Your task to perform on an android device: snooze an email in the gmail app Image 0: 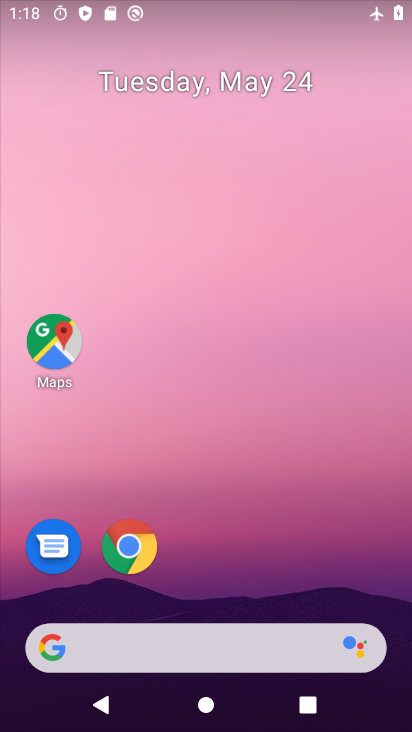
Step 0: drag from (228, 352) to (285, 0)
Your task to perform on an android device: snooze an email in the gmail app Image 1: 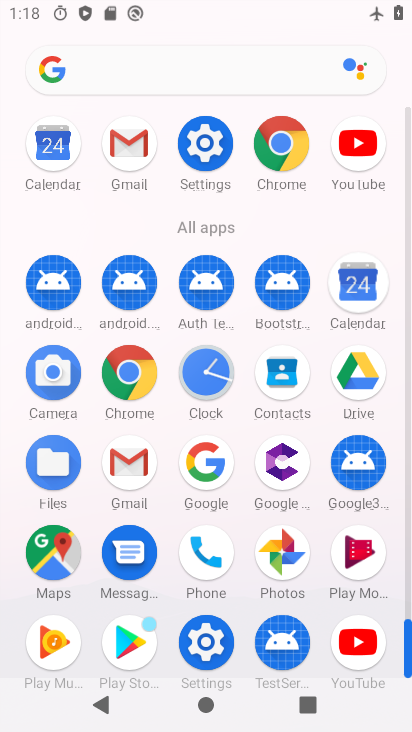
Step 1: click (118, 455)
Your task to perform on an android device: snooze an email in the gmail app Image 2: 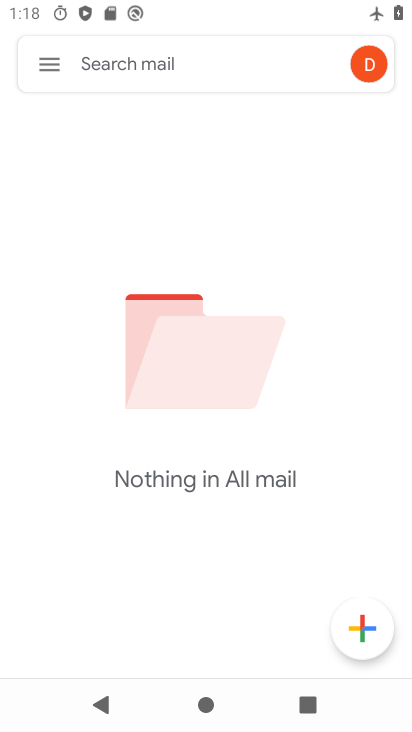
Step 2: drag from (211, 585) to (235, 196)
Your task to perform on an android device: snooze an email in the gmail app Image 3: 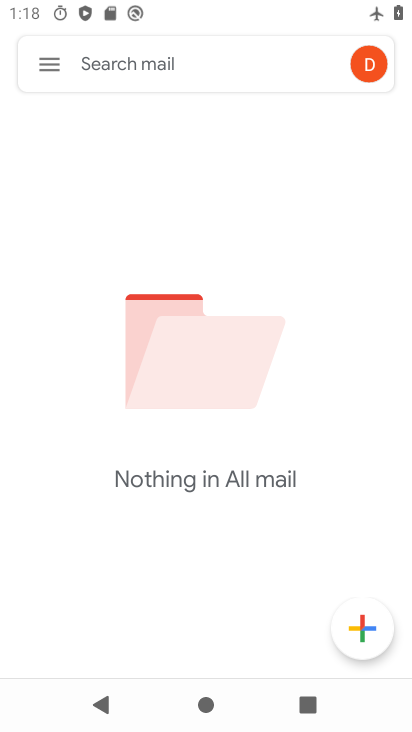
Step 3: click (50, 53)
Your task to perform on an android device: snooze an email in the gmail app Image 4: 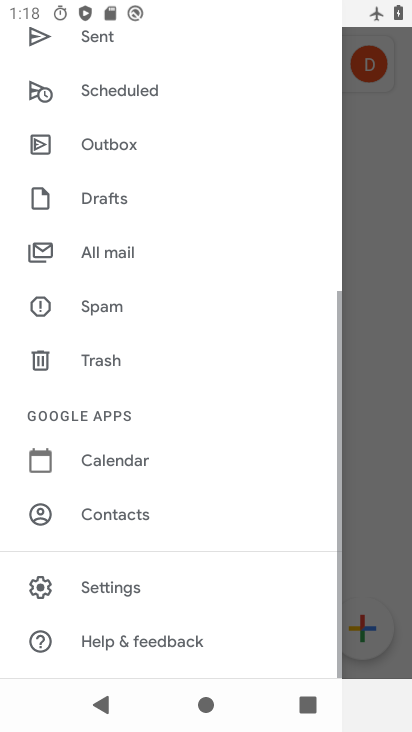
Step 4: drag from (166, 496) to (234, 97)
Your task to perform on an android device: snooze an email in the gmail app Image 5: 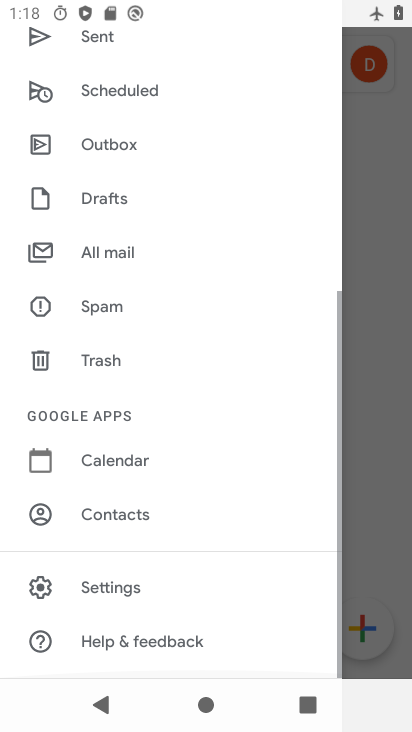
Step 5: drag from (216, 193) to (286, 715)
Your task to perform on an android device: snooze an email in the gmail app Image 6: 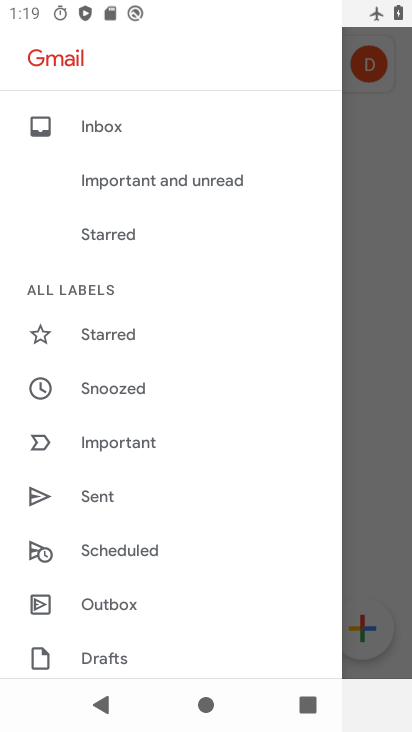
Step 6: click (80, 385)
Your task to perform on an android device: snooze an email in the gmail app Image 7: 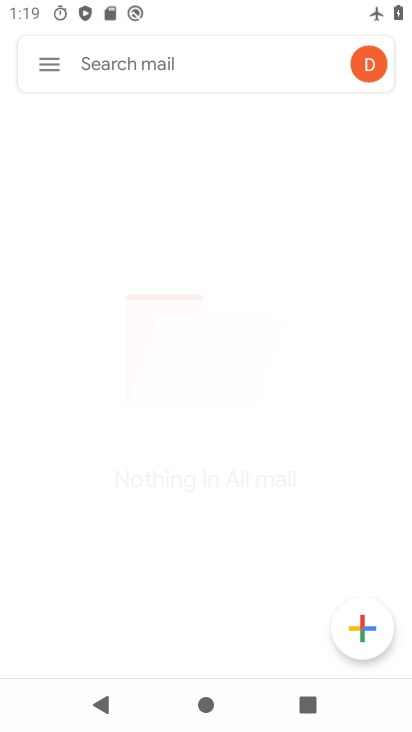
Step 7: task complete